Your task to perform on an android device: Open Amazon Image 0: 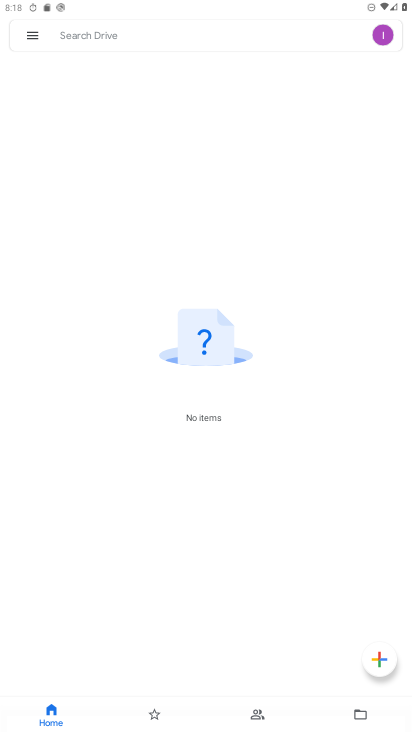
Step 0: drag from (248, 507) to (276, 336)
Your task to perform on an android device: Open Amazon Image 1: 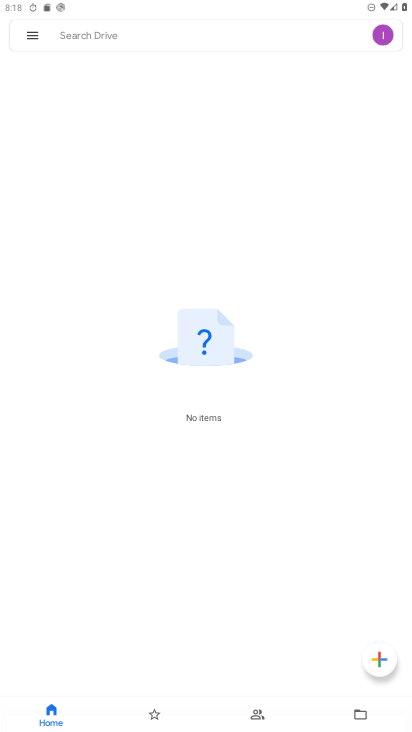
Step 1: press home button
Your task to perform on an android device: Open Amazon Image 2: 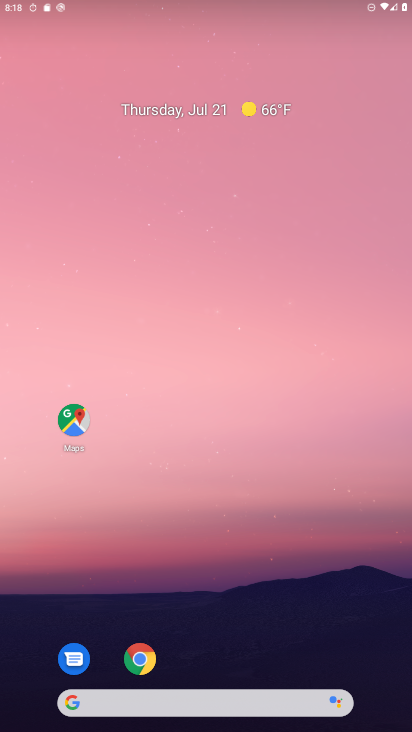
Step 2: drag from (220, 639) to (321, 168)
Your task to perform on an android device: Open Amazon Image 3: 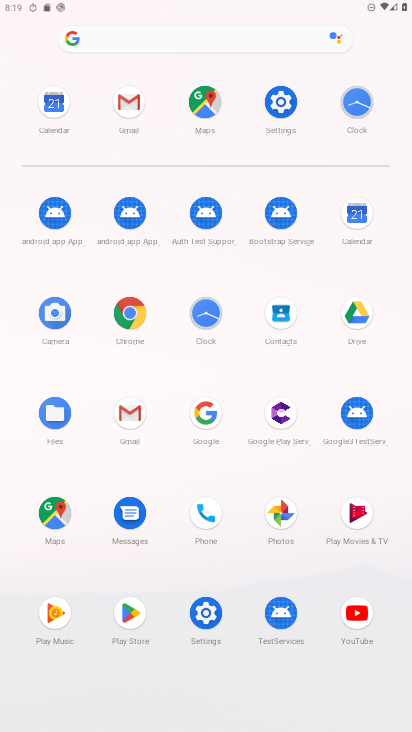
Step 3: click (120, 308)
Your task to perform on an android device: Open Amazon Image 4: 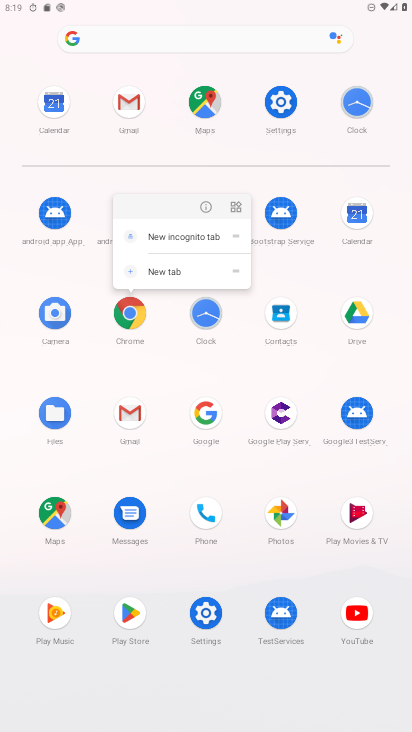
Step 4: click (208, 200)
Your task to perform on an android device: Open Amazon Image 5: 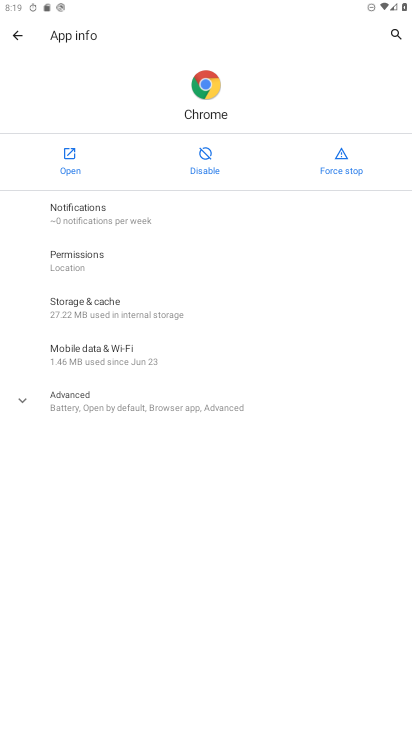
Step 5: click (72, 157)
Your task to perform on an android device: Open Amazon Image 6: 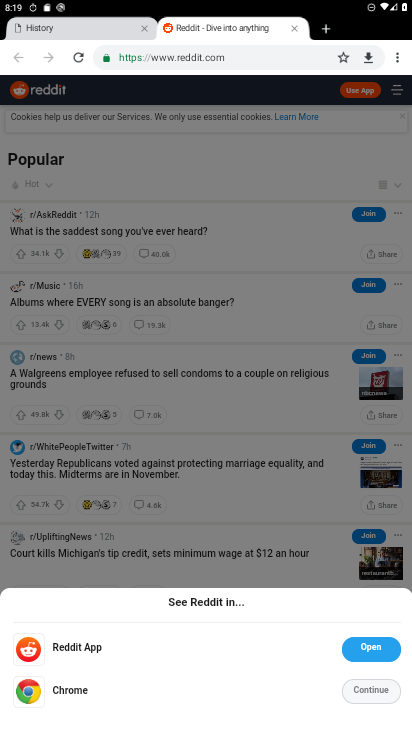
Step 6: click (322, 29)
Your task to perform on an android device: Open Amazon Image 7: 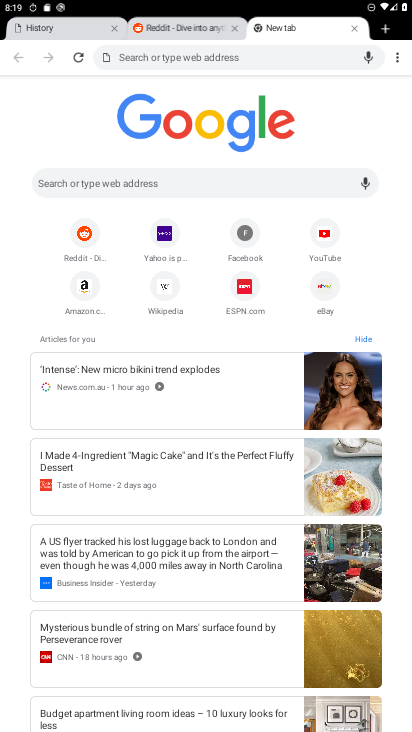
Step 7: click (93, 298)
Your task to perform on an android device: Open Amazon Image 8: 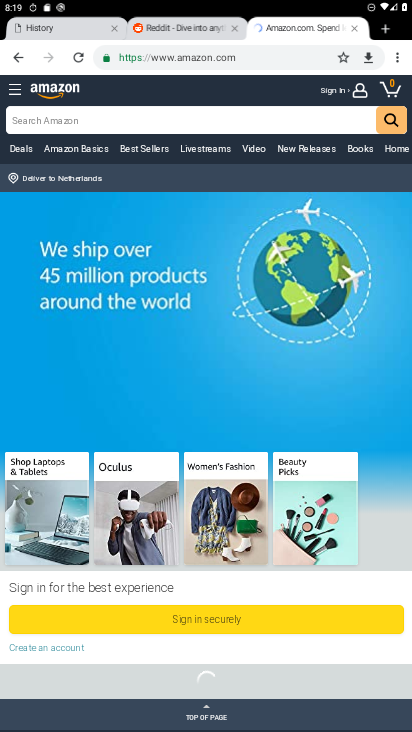
Step 8: task complete